Your task to perform on an android device: toggle translation in the chrome app Image 0: 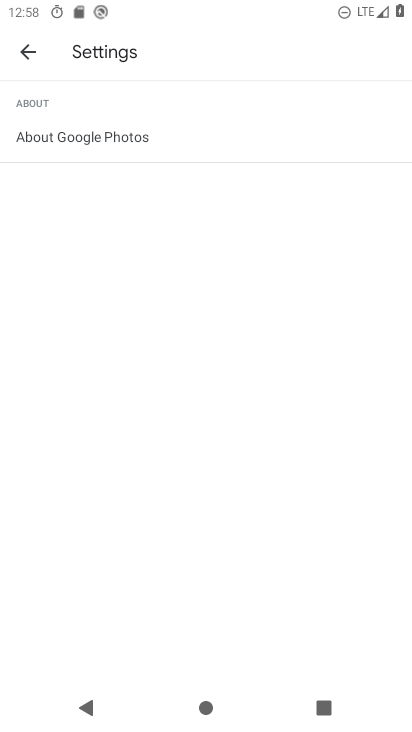
Step 0: press home button
Your task to perform on an android device: toggle translation in the chrome app Image 1: 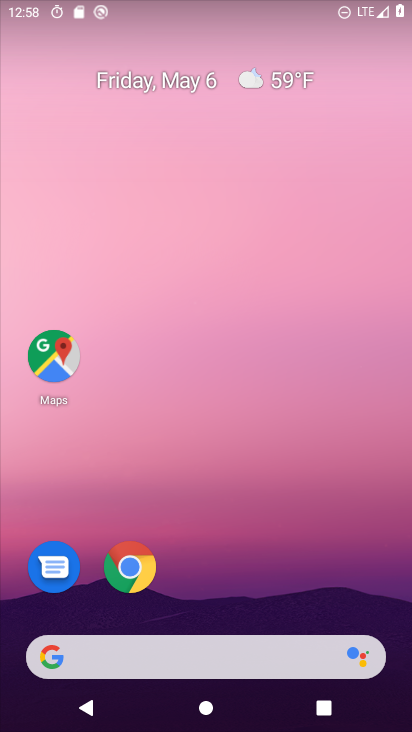
Step 1: click (128, 572)
Your task to perform on an android device: toggle translation in the chrome app Image 2: 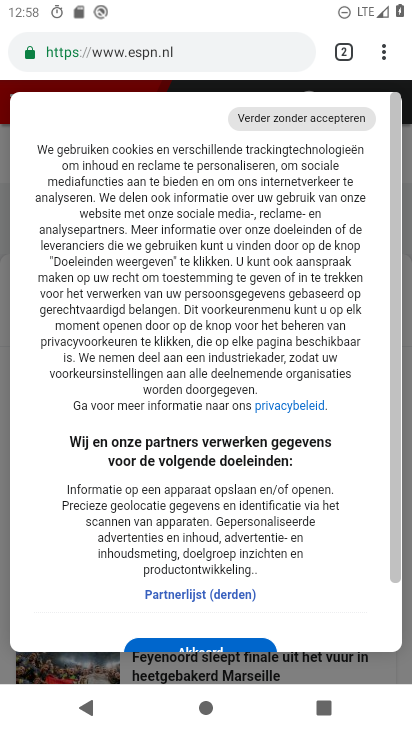
Step 2: drag from (387, 55) to (196, 610)
Your task to perform on an android device: toggle translation in the chrome app Image 3: 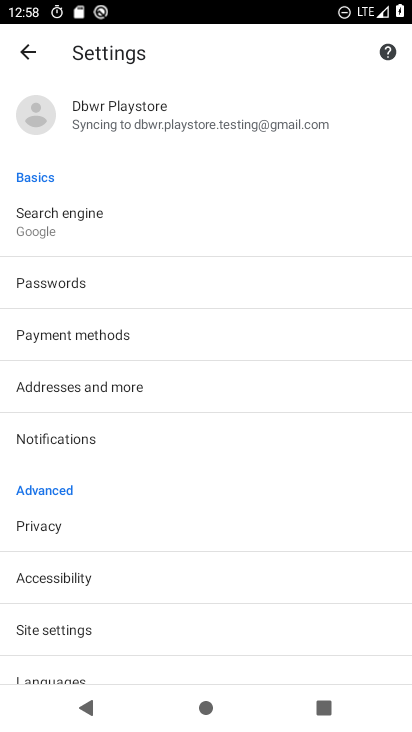
Step 3: drag from (208, 619) to (214, 473)
Your task to perform on an android device: toggle translation in the chrome app Image 4: 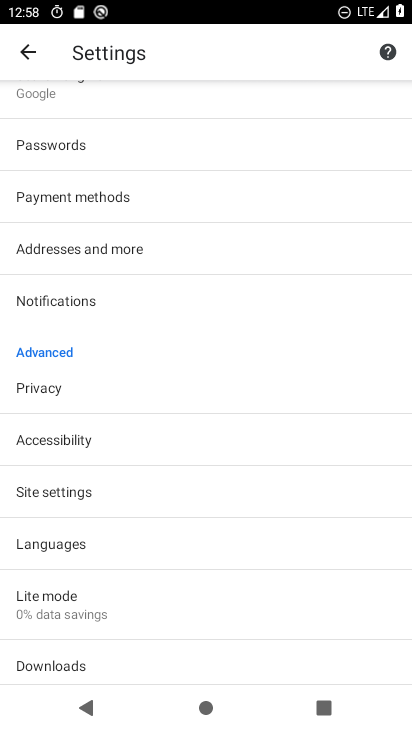
Step 4: click (61, 546)
Your task to perform on an android device: toggle translation in the chrome app Image 5: 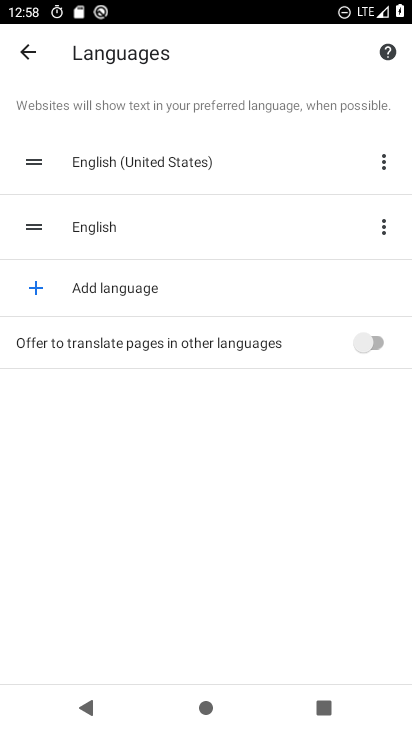
Step 5: click (359, 346)
Your task to perform on an android device: toggle translation in the chrome app Image 6: 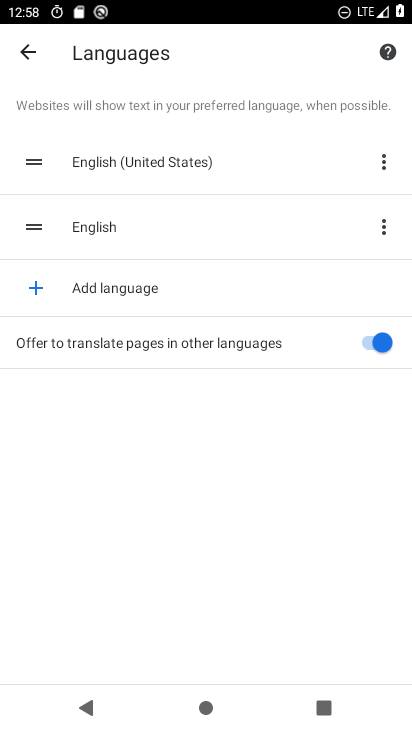
Step 6: task complete